Your task to perform on an android device: Go to notification settings Image 0: 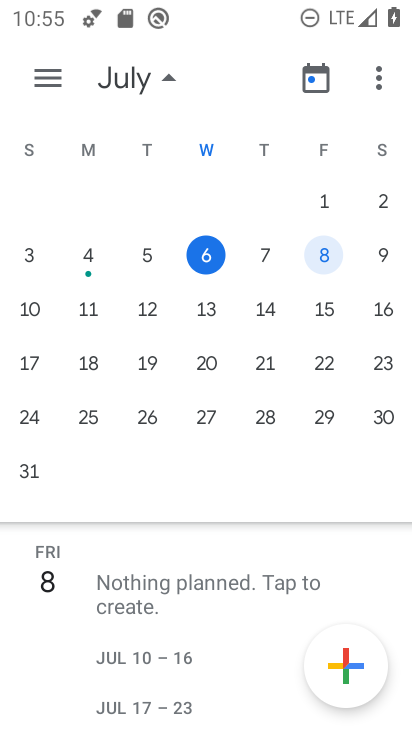
Step 0: press home button
Your task to perform on an android device: Go to notification settings Image 1: 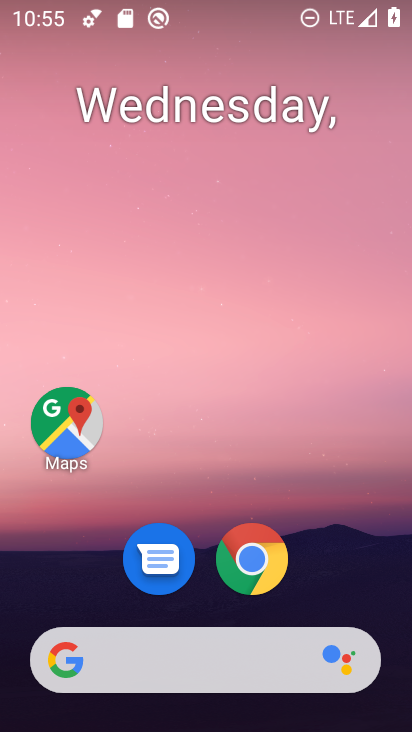
Step 1: drag from (379, 590) to (349, 192)
Your task to perform on an android device: Go to notification settings Image 2: 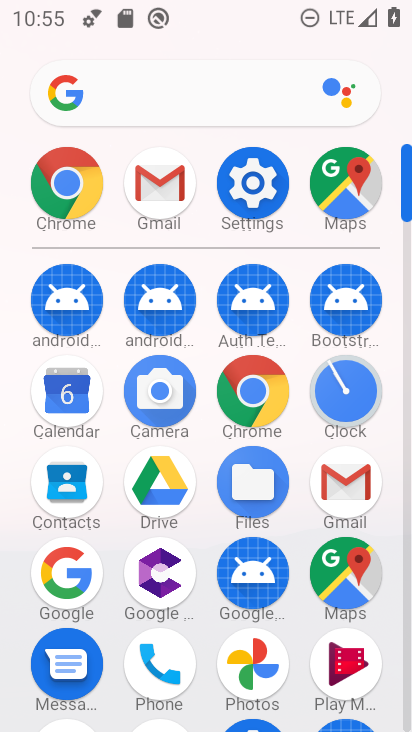
Step 2: click (257, 195)
Your task to perform on an android device: Go to notification settings Image 3: 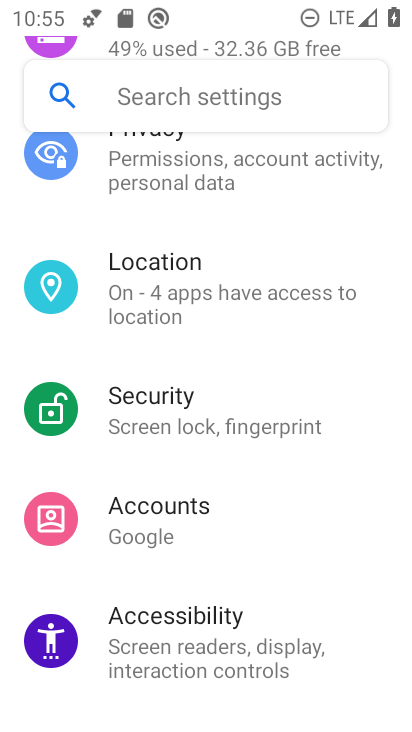
Step 3: drag from (359, 243) to (359, 387)
Your task to perform on an android device: Go to notification settings Image 4: 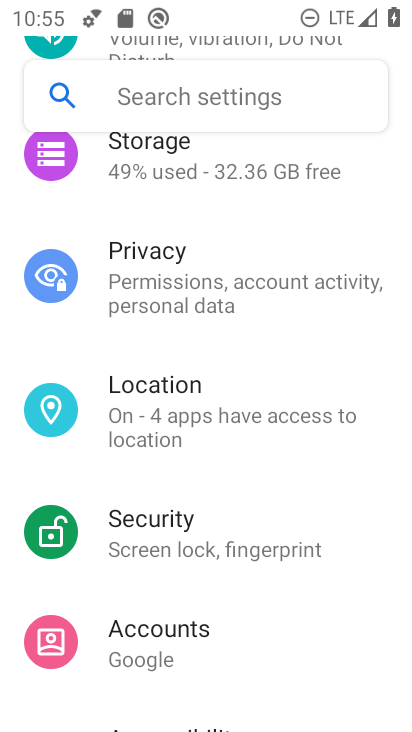
Step 4: drag from (361, 230) to (360, 361)
Your task to perform on an android device: Go to notification settings Image 5: 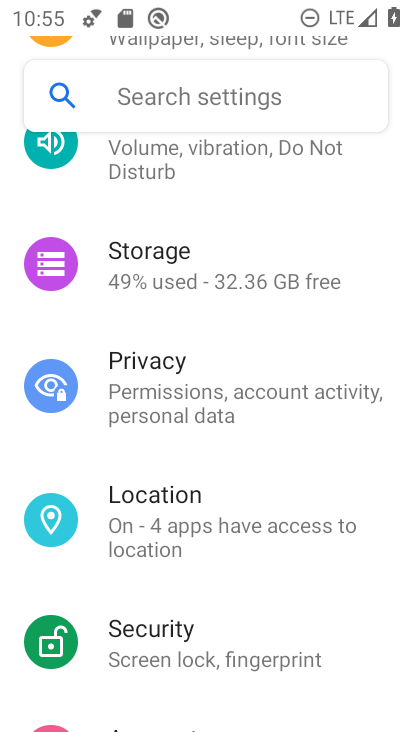
Step 5: drag from (371, 216) to (377, 313)
Your task to perform on an android device: Go to notification settings Image 6: 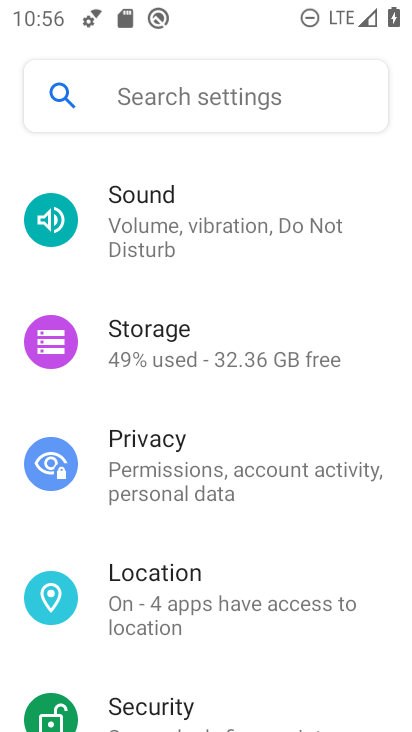
Step 6: drag from (371, 247) to (378, 338)
Your task to perform on an android device: Go to notification settings Image 7: 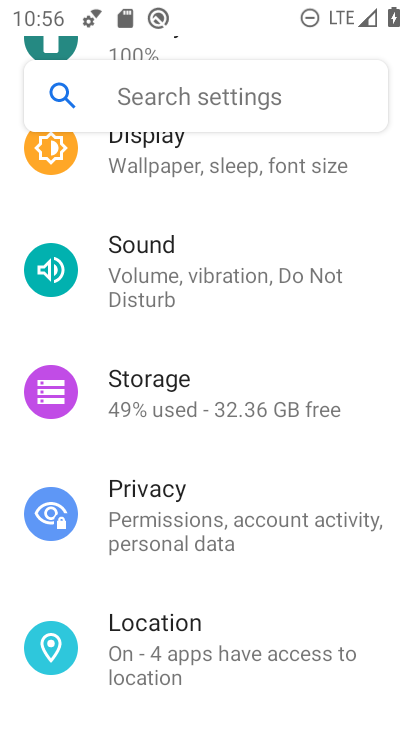
Step 7: drag from (380, 236) to (380, 341)
Your task to perform on an android device: Go to notification settings Image 8: 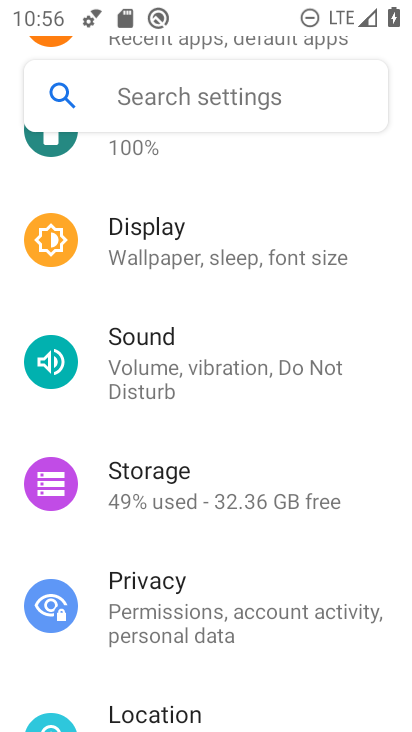
Step 8: drag from (380, 213) to (379, 289)
Your task to perform on an android device: Go to notification settings Image 9: 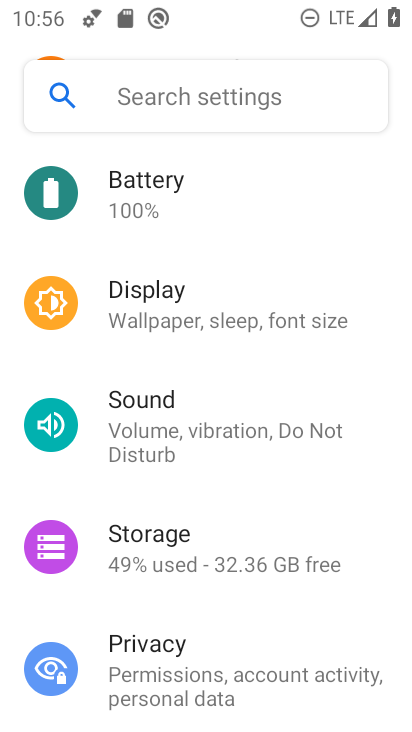
Step 9: drag from (379, 201) to (383, 319)
Your task to perform on an android device: Go to notification settings Image 10: 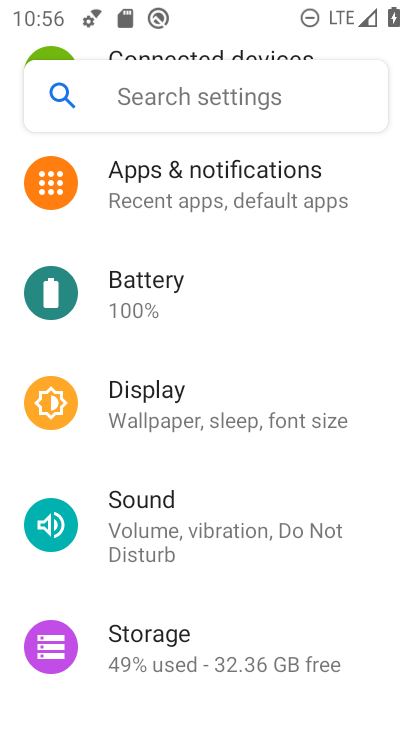
Step 10: drag from (379, 206) to (382, 319)
Your task to perform on an android device: Go to notification settings Image 11: 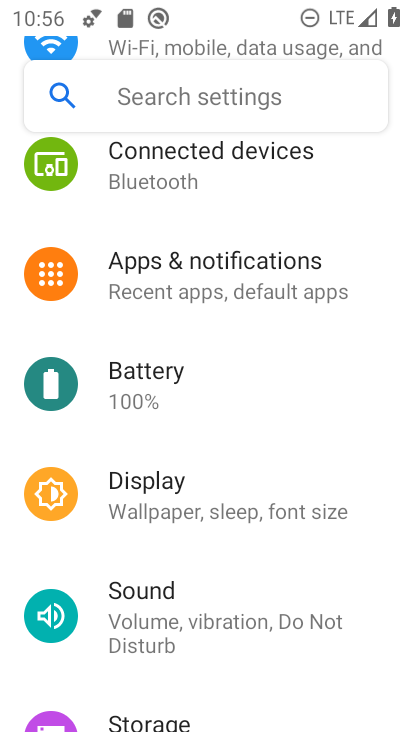
Step 11: drag from (379, 183) to (383, 308)
Your task to perform on an android device: Go to notification settings Image 12: 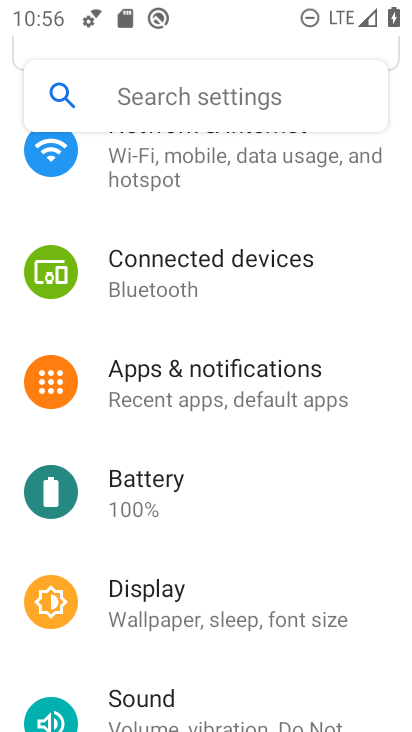
Step 12: click (277, 384)
Your task to perform on an android device: Go to notification settings Image 13: 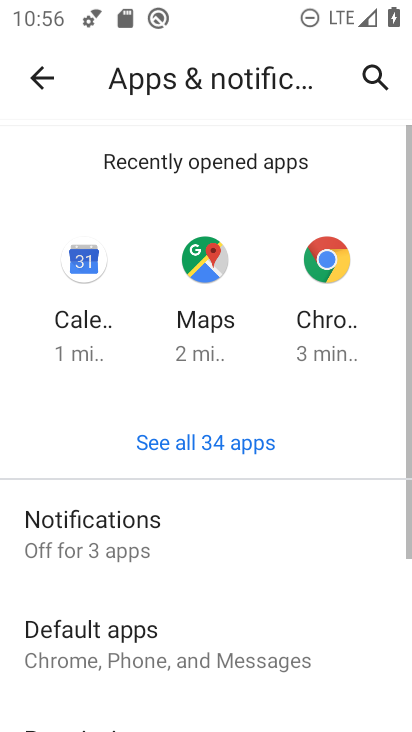
Step 13: drag from (287, 543) to (298, 419)
Your task to perform on an android device: Go to notification settings Image 14: 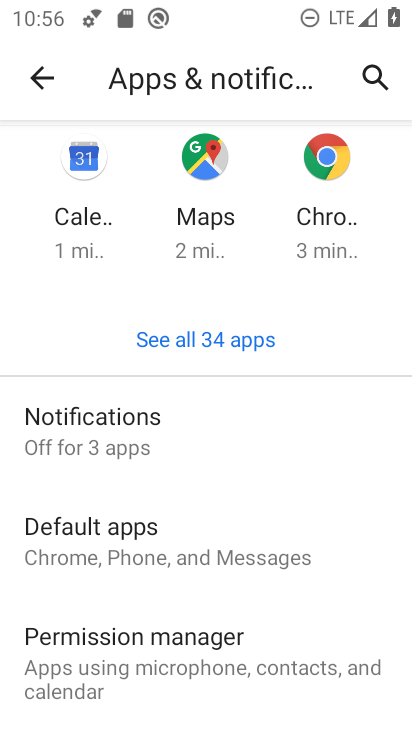
Step 14: click (137, 436)
Your task to perform on an android device: Go to notification settings Image 15: 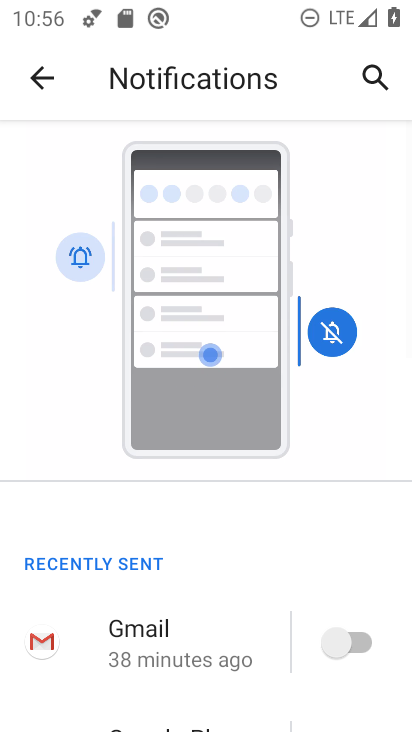
Step 15: task complete